Your task to perform on an android device: change timer sound Image 0: 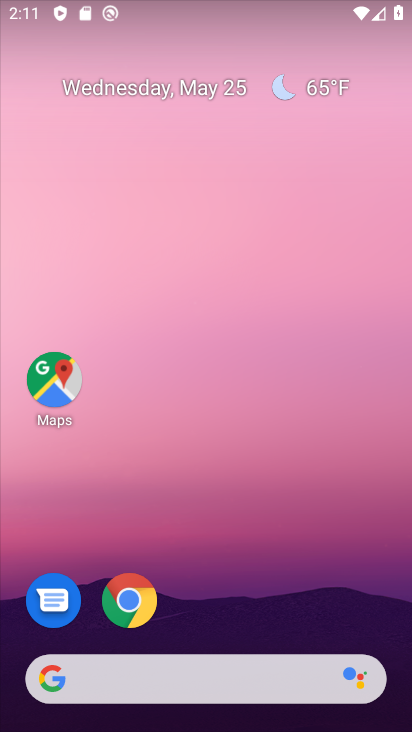
Step 0: drag from (279, 587) to (265, 150)
Your task to perform on an android device: change timer sound Image 1: 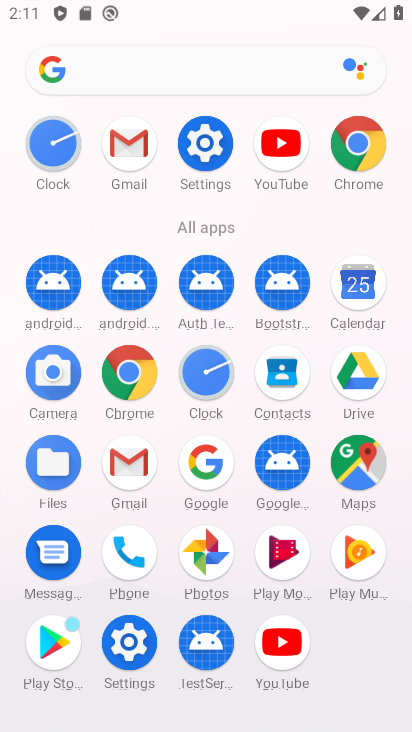
Step 1: click (218, 361)
Your task to perform on an android device: change timer sound Image 2: 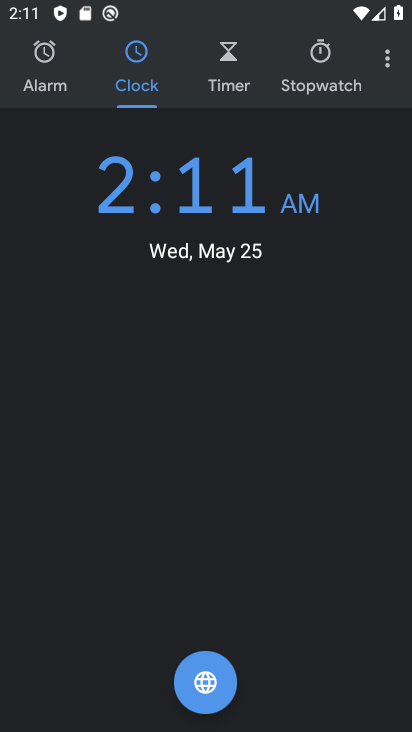
Step 2: click (394, 63)
Your task to perform on an android device: change timer sound Image 3: 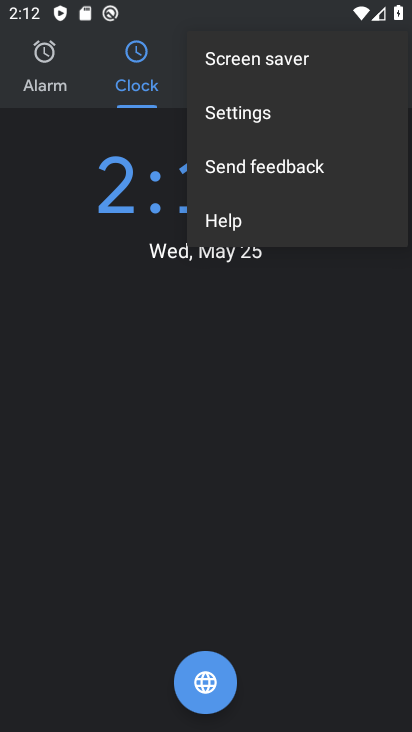
Step 3: click (273, 131)
Your task to perform on an android device: change timer sound Image 4: 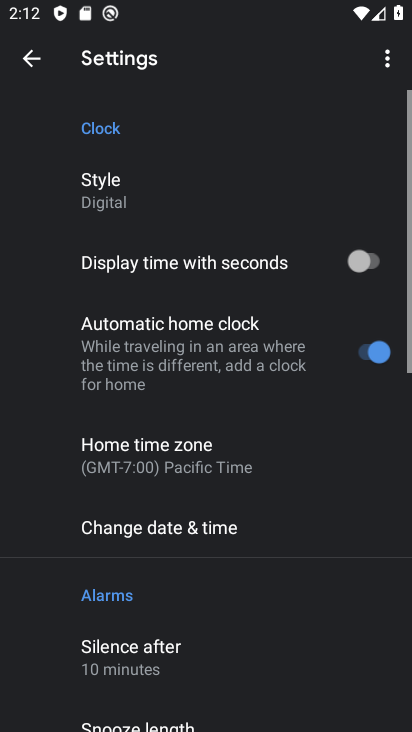
Step 4: drag from (134, 506) to (247, 97)
Your task to perform on an android device: change timer sound Image 5: 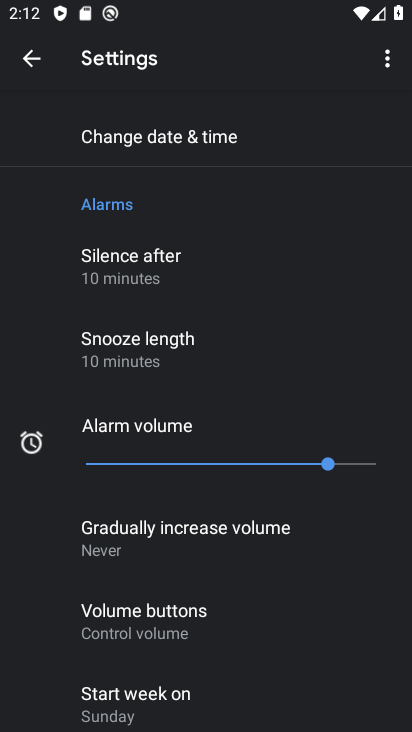
Step 5: drag from (224, 476) to (336, 70)
Your task to perform on an android device: change timer sound Image 6: 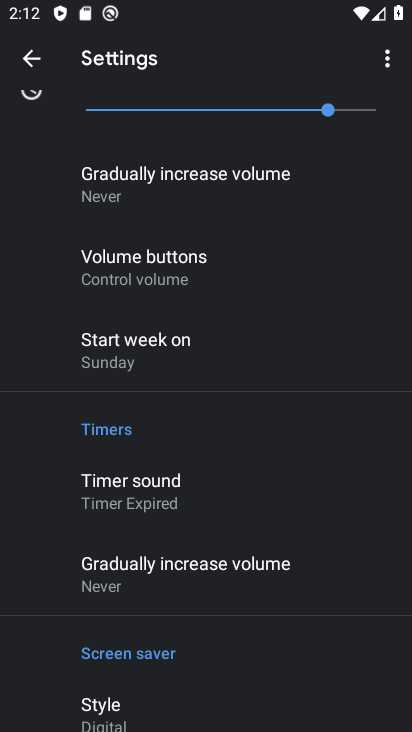
Step 6: click (174, 497)
Your task to perform on an android device: change timer sound Image 7: 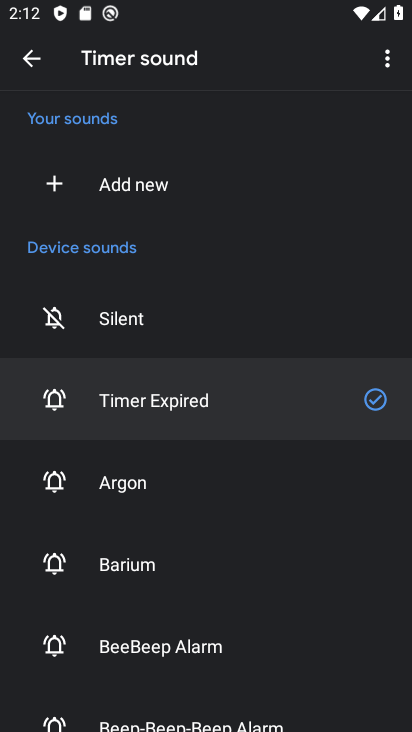
Step 7: click (104, 477)
Your task to perform on an android device: change timer sound Image 8: 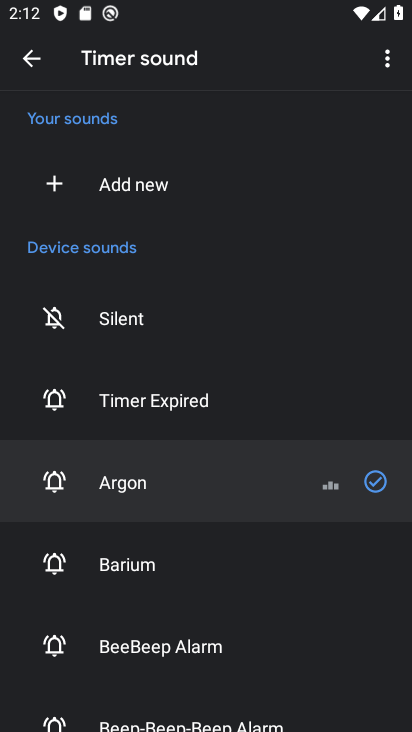
Step 8: task complete